Your task to perform on an android device: Open settings Image 0: 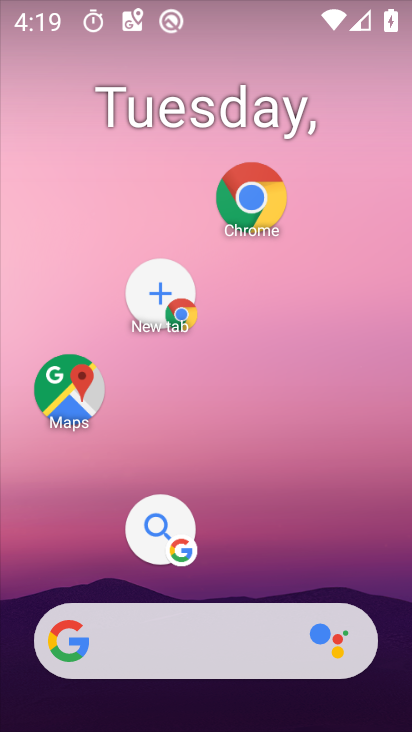
Step 0: drag from (227, 597) to (174, 152)
Your task to perform on an android device: Open settings Image 1: 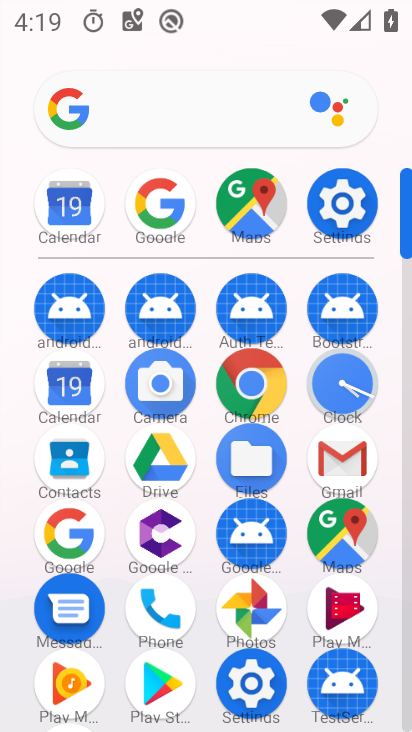
Step 1: click (332, 214)
Your task to perform on an android device: Open settings Image 2: 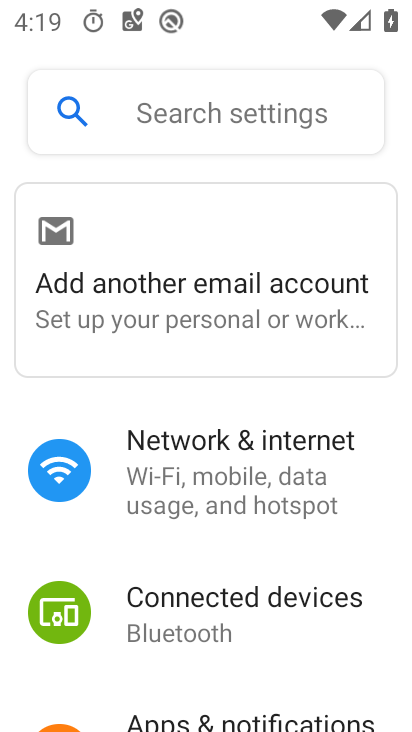
Step 2: task complete